Your task to perform on an android device: read, delete, or share a saved page in the chrome app Image 0: 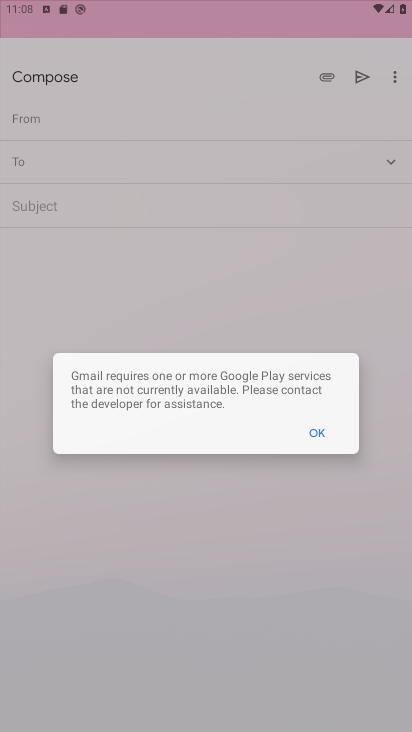
Step 0: press home button
Your task to perform on an android device: read, delete, or share a saved page in the chrome app Image 1: 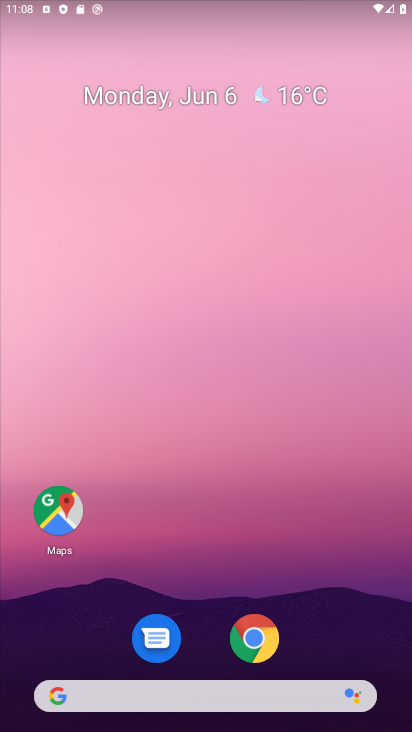
Step 1: press home button
Your task to perform on an android device: read, delete, or share a saved page in the chrome app Image 2: 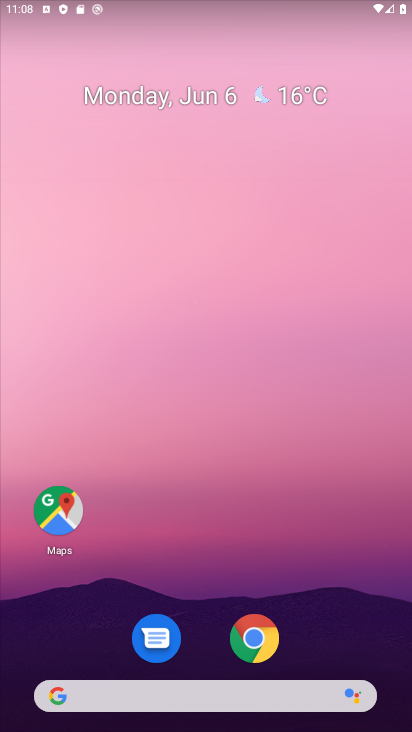
Step 2: drag from (192, 722) to (133, 257)
Your task to perform on an android device: read, delete, or share a saved page in the chrome app Image 3: 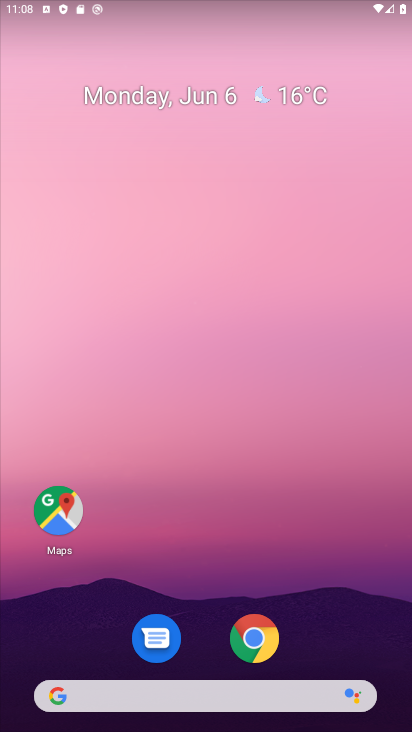
Step 3: drag from (147, 720) to (174, 168)
Your task to perform on an android device: read, delete, or share a saved page in the chrome app Image 4: 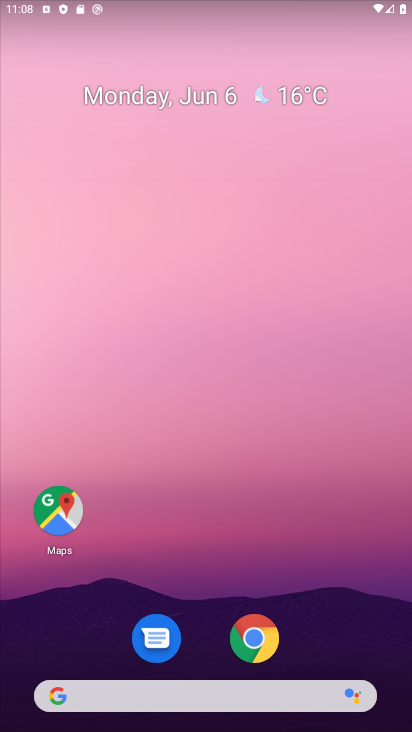
Step 4: drag from (341, 720) to (281, 185)
Your task to perform on an android device: read, delete, or share a saved page in the chrome app Image 5: 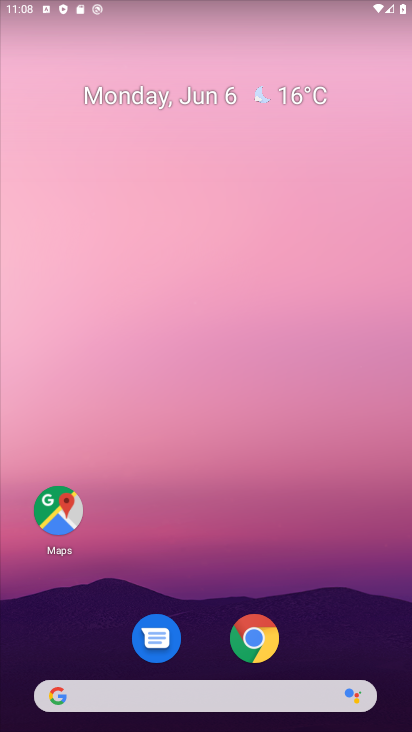
Step 5: click (249, 635)
Your task to perform on an android device: read, delete, or share a saved page in the chrome app Image 6: 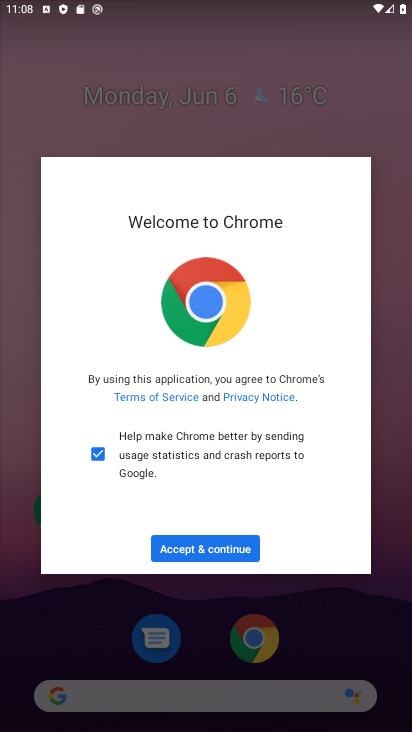
Step 6: click (241, 536)
Your task to perform on an android device: read, delete, or share a saved page in the chrome app Image 7: 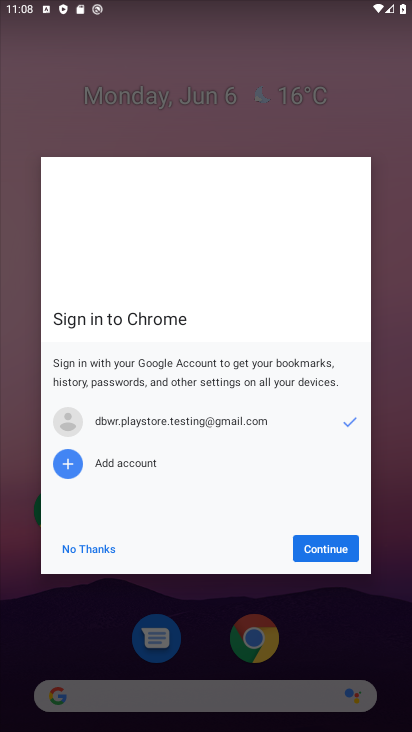
Step 7: click (310, 537)
Your task to perform on an android device: read, delete, or share a saved page in the chrome app Image 8: 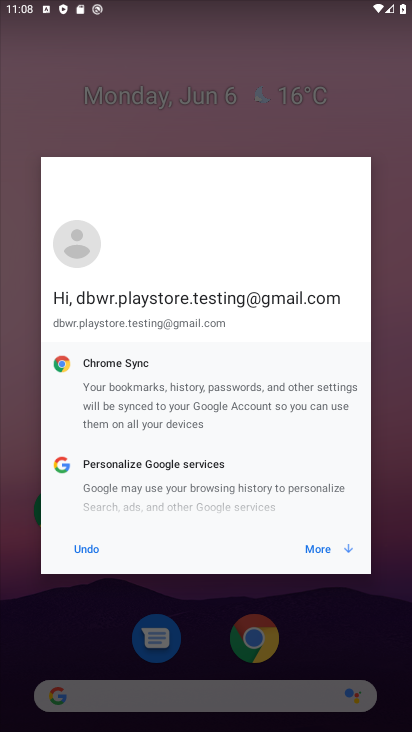
Step 8: click (320, 544)
Your task to perform on an android device: read, delete, or share a saved page in the chrome app Image 9: 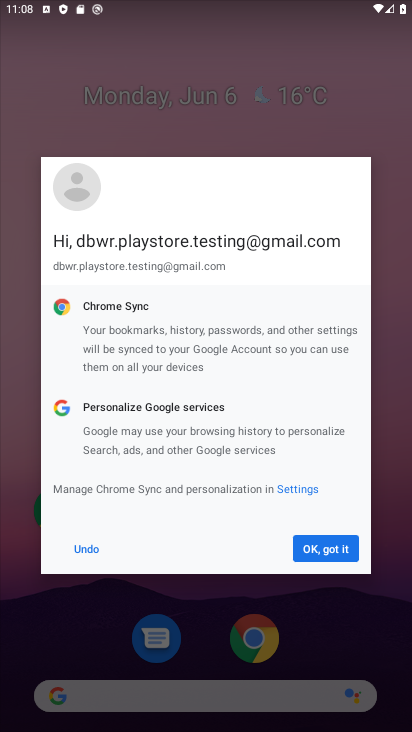
Step 9: click (320, 544)
Your task to perform on an android device: read, delete, or share a saved page in the chrome app Image 10: 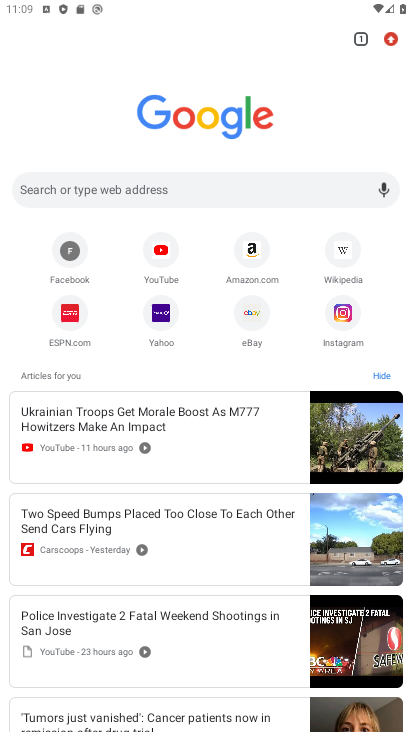
Step 10: click (398, 35)
Your task to perform on an android device: read, delete, or share a saved page in the chrome app Image 11: 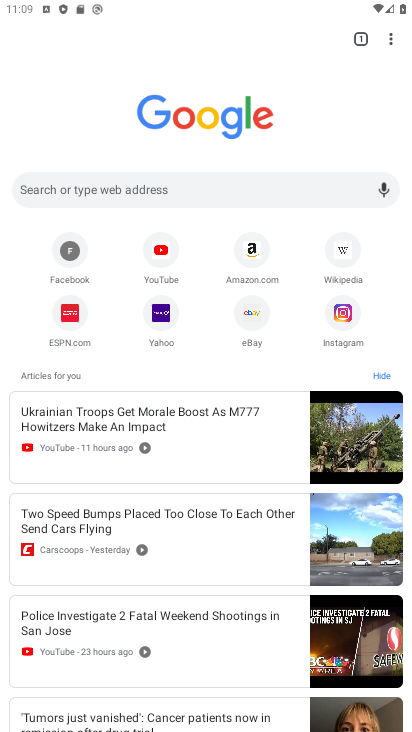
Step 11: click (387, 56)
Your task to perform on an android device: read, delete, or share a saved page in the chrome app Image 12: 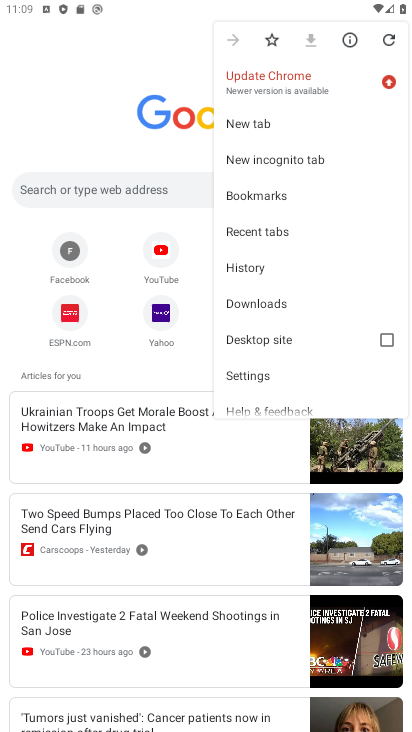
Step 12: click (244, 269)
Your task to perform on an android device: read, delete, or share a saved page in the chrome app Image 13: 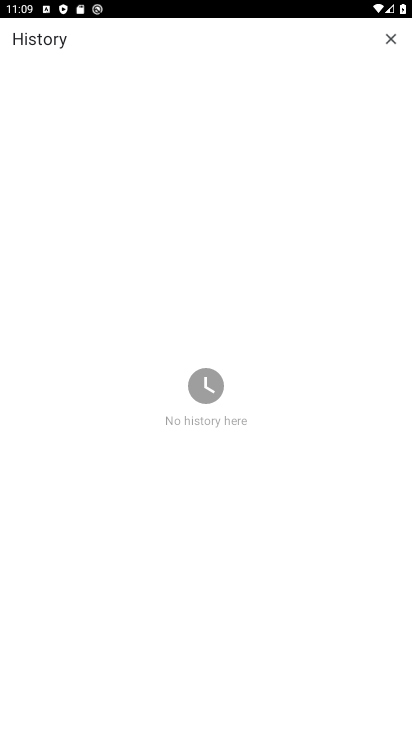
Step 13: task complete